Your task to perform on an android device: Show me popular videos on Youtube Image 0: 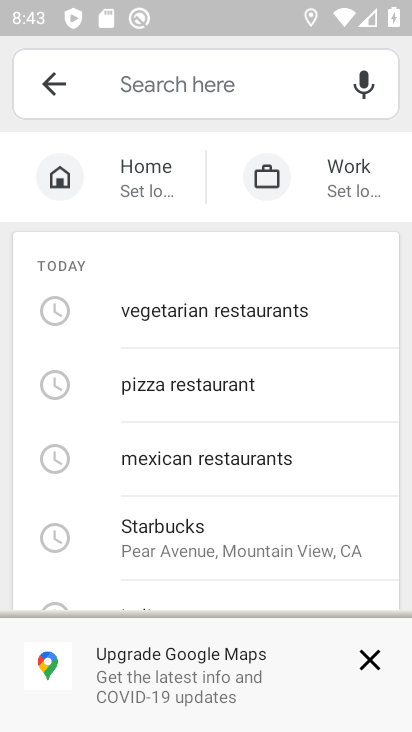
Step 0: press home button
Your task to perform on an android device: Show me popular videos on Youtube Image 1: 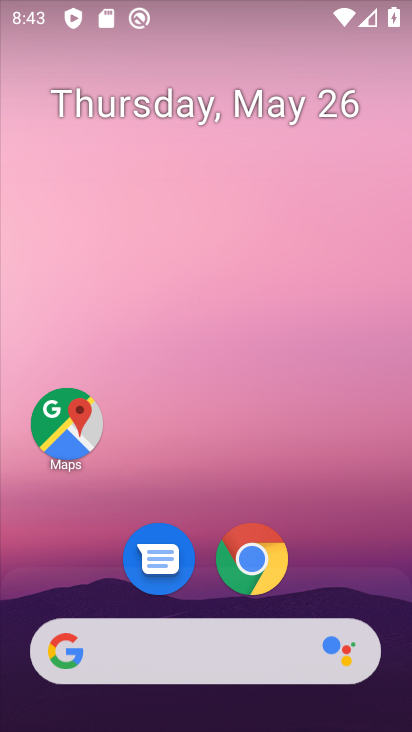
Step 1: drag from (215, 597) to (267, 56)
Your task to perform on an android device: Show me popular videos on Youtube Image 2: 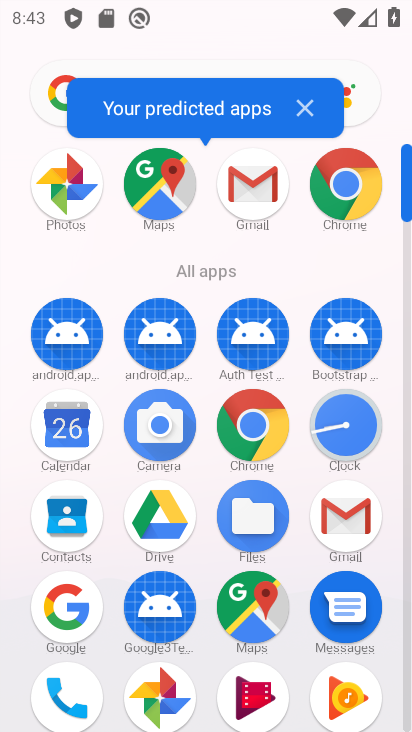
Step 2: drag from (293, 622) to (314, 218)
Your task to perform on an android device: Show me popular videos on Youtube Image 3: 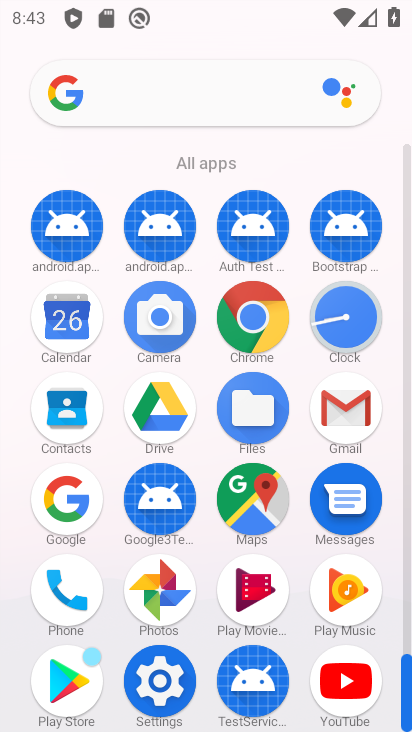
Step 3: click (345, 680)
Your task to perform on an android device: Show me popular videos on Youtube Image 4: 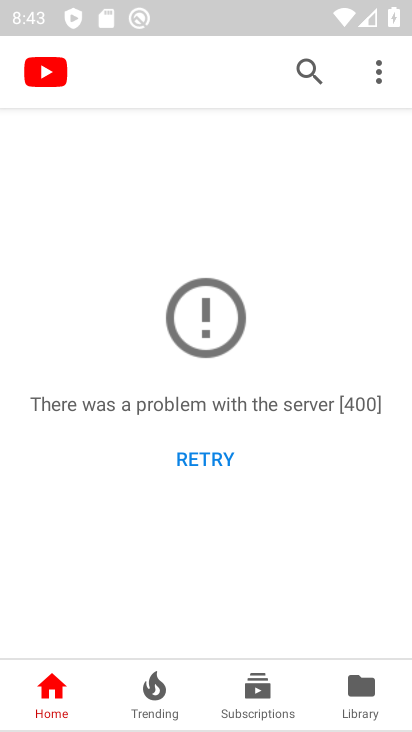
Step 4: click (306, 71)
Your task to perform on an android device: Show me popular videos on Youtube Image 5: 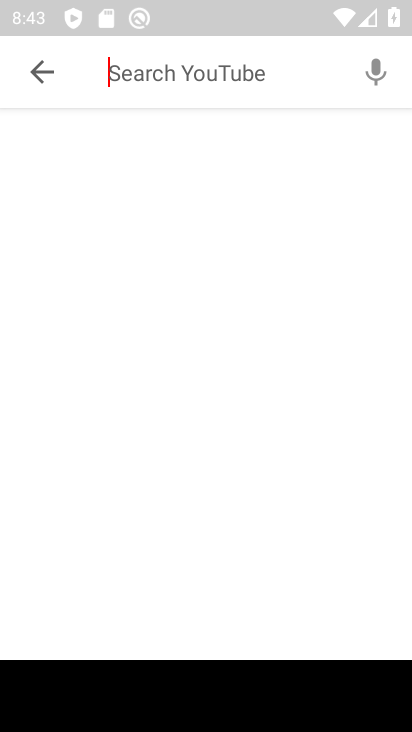
Step 5: task complete